Your task to perform on an android device: Go to Maps Image 0: 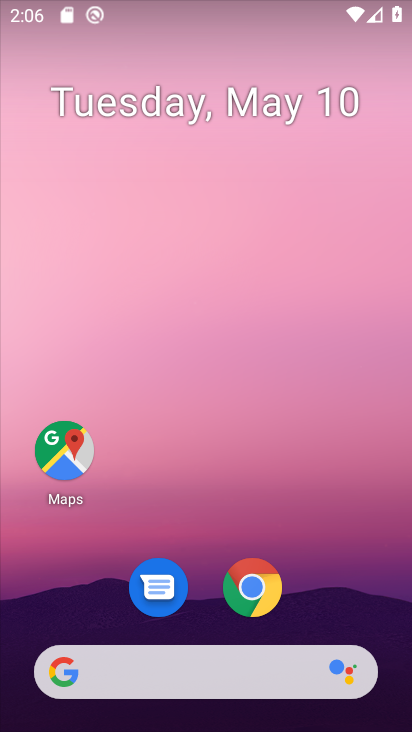
Step 0: click (76, 453)
Your task to perform on an android device: Go to Maps Image 1: 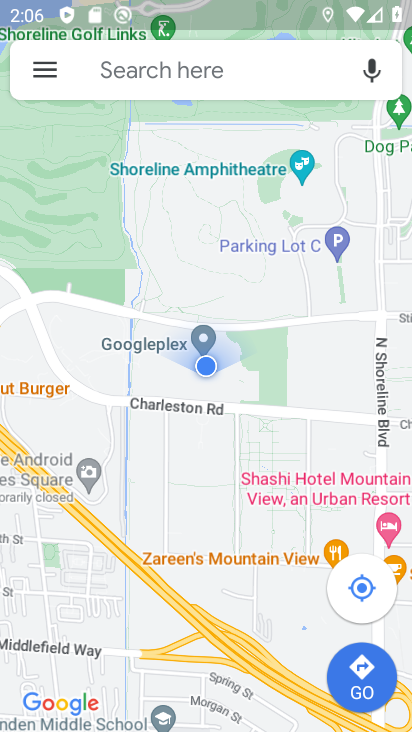
Step 1: task complete